Your task to perform on an android device: see tabs open on other devices in the chrome app Image 0: 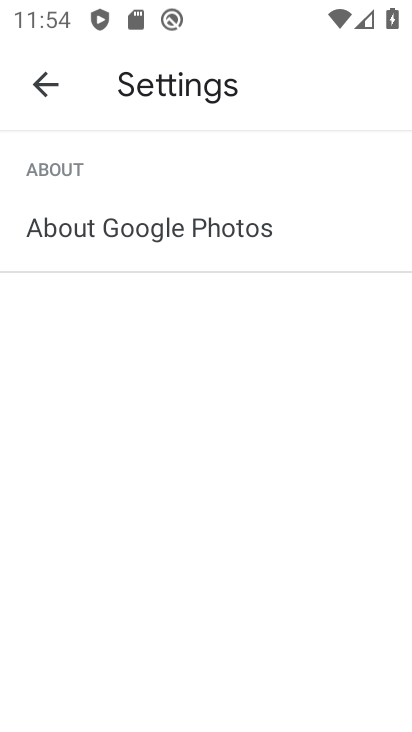
Step 0: press home button
Your task to perform on an android device: see tabs open on other devices in the chrome app Image 1: 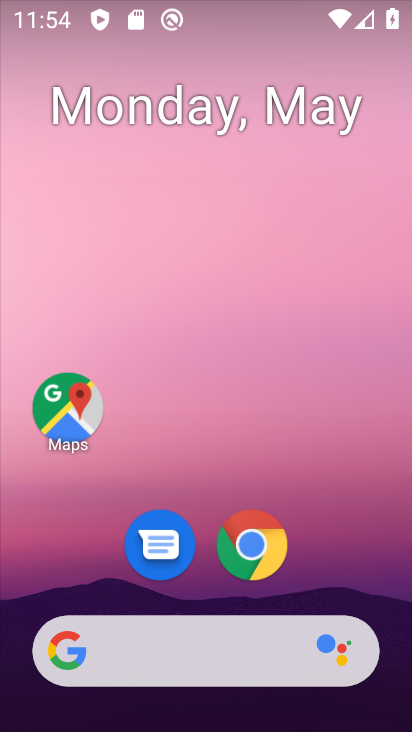
Step 1: click (286, 549)
Your task to perform on an android device: see tabs open on other devices in the chrome app Image 2: 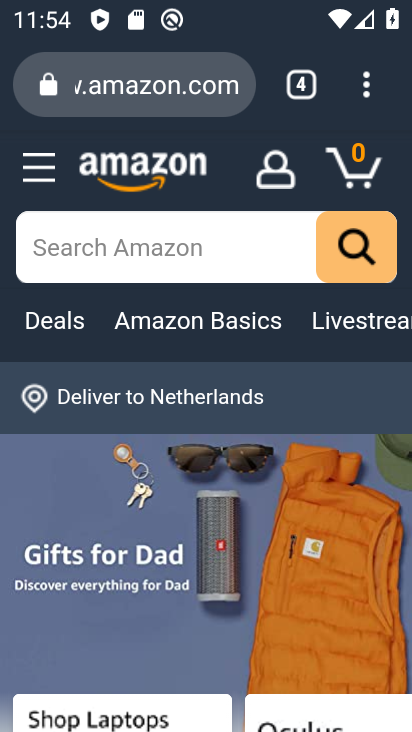
Step 2: click (363, 86)
Your task to perform on an android device: see tabs open on other devices in the chrome app Image 3: 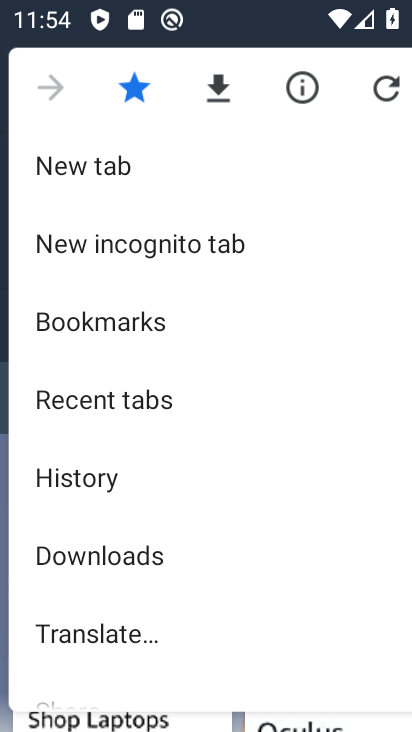
Step 3: press back button
Your task to perform on an android device: see tabs open on other devices in the chrome app Image 4: 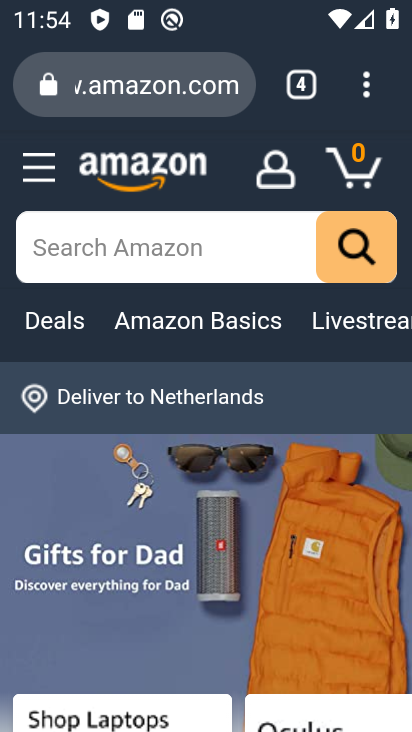
Step 4: click (307, 94)
Your task to perform on an android device: see tabs open on other devices in the chrome app Image 5: 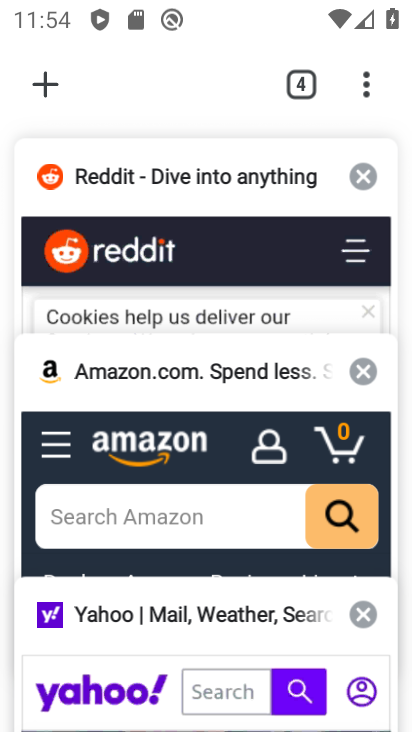
Step 5: task complete